Your task to perform on an android device: turn on bluetooth scan Image 0: 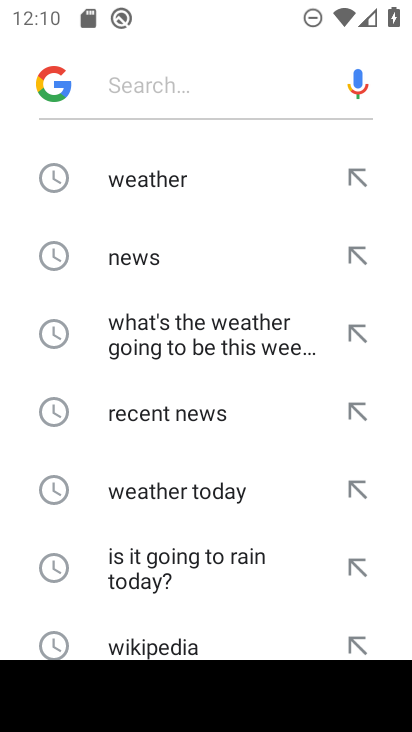
Step 0: press home button
Your task to perform on an android device: turn on bluetooth scan Image 1: 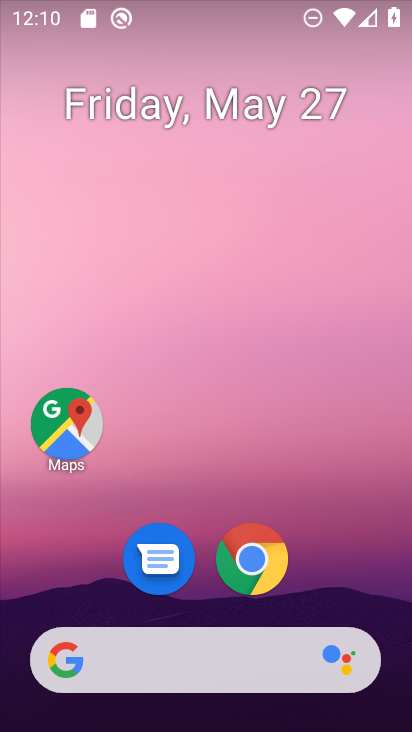
Step 1: drag from (325, 533) to (338, 14)
Your task to perform on an android device: turn on bluetooth scan Image 2: 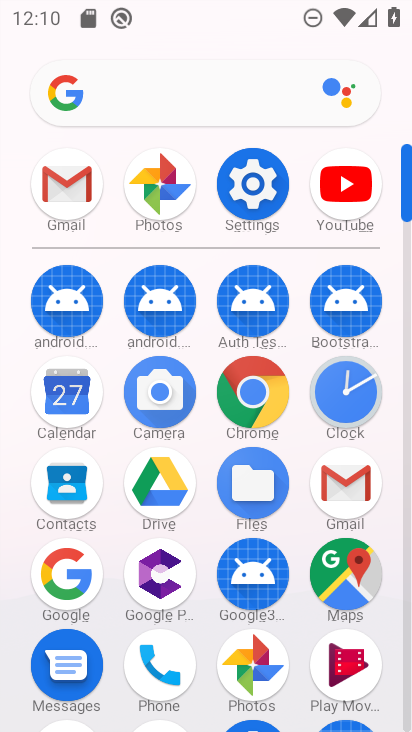
Step 2: click (269, 165)
Your task to perform on an android device: turn on bluetooth scan Image 3: 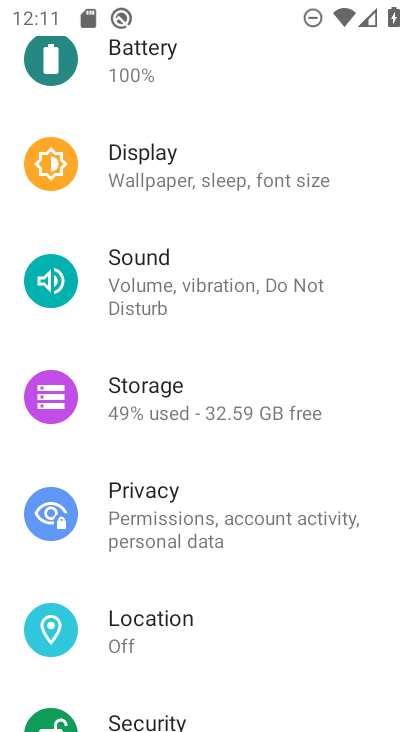
Step 3: drag from (219, 126) to (227, 609)
Your task to perform on an android device: turn on bluetooth scan Image 4: 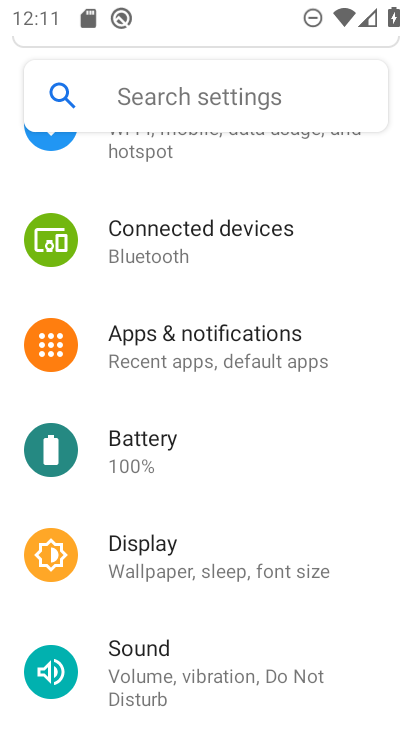
Step 4: drag from (248, 220) to (273, 566)
Your task to perform on an android device: turn on bluetooth scan Image 5: 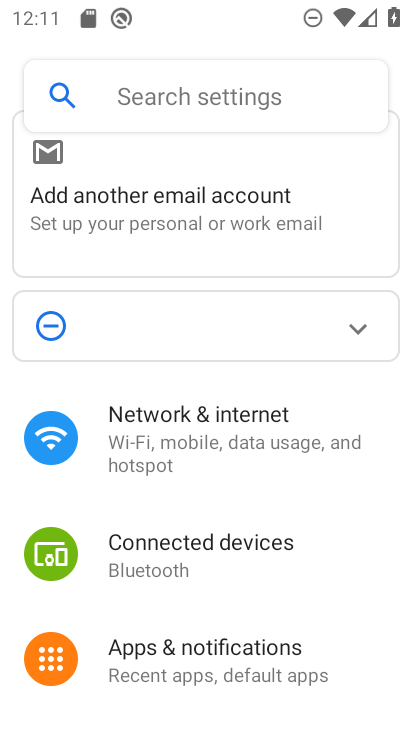
Step 5: click (270, 450)
Your task to perform on an android device: turn on bluetooth scan Image 6: 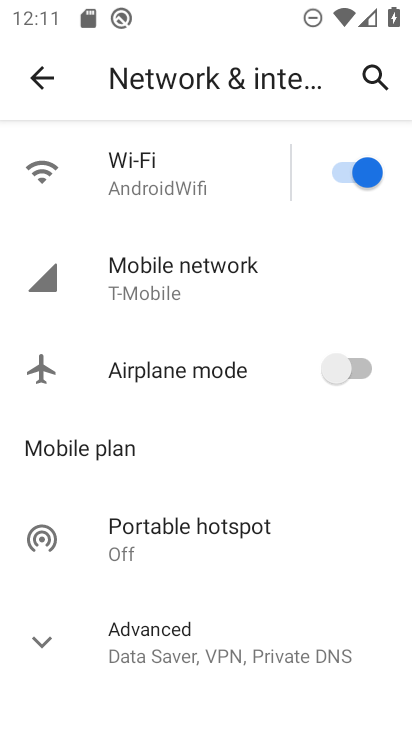
Step 6: task complete